Your task to perform on an android device: Open Amazon Image 0: 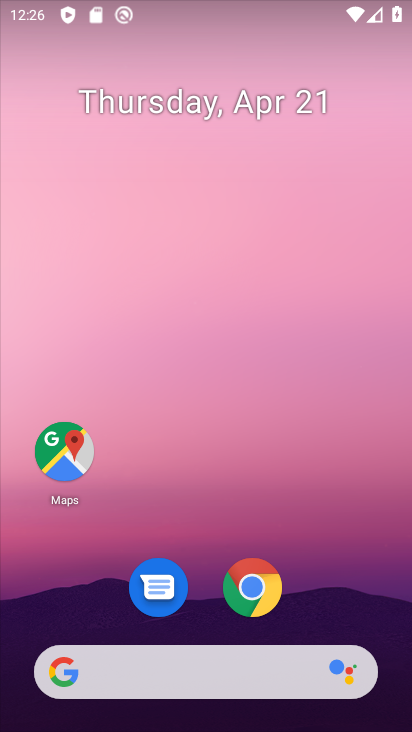
Step 0: click (254, 594)
Your task to perform on an android device: Open Amazon Image 1: 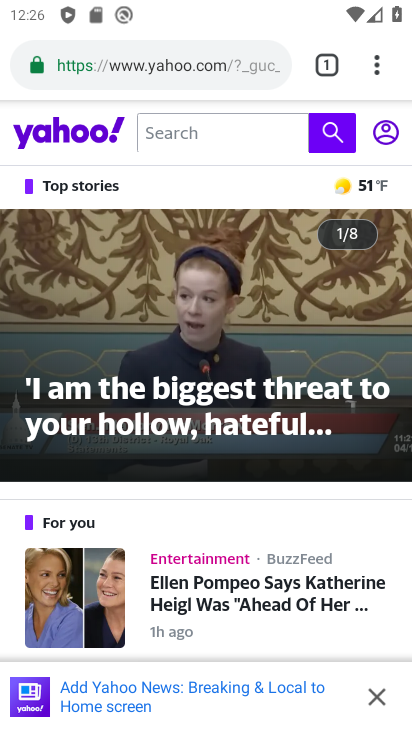
Step 1: click (369, 75)
Your task to perform on an android device: Open Amazon Image 2: 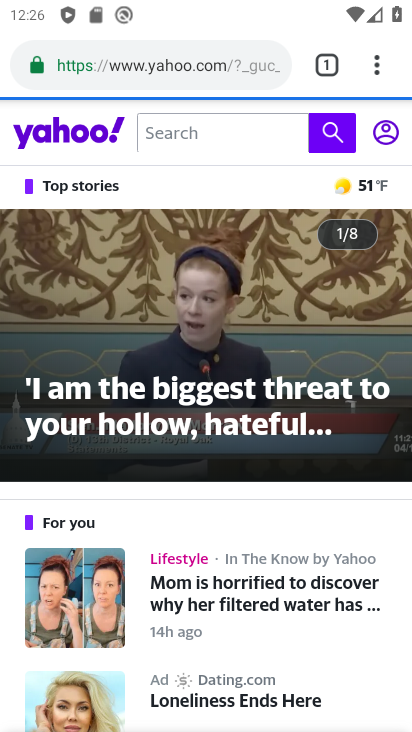
Step 2: click (377, 72)
Your task to perform on an android device: Open Amazon Image 3: 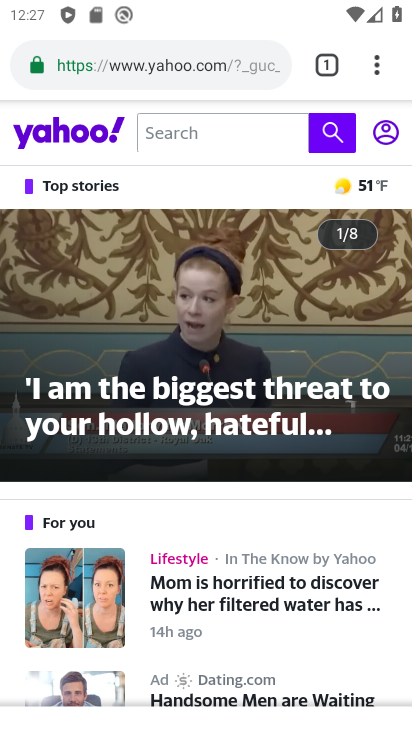
Step 3: click (377, 65)
Your task to perform on an android device: Open Amazon Image 4: 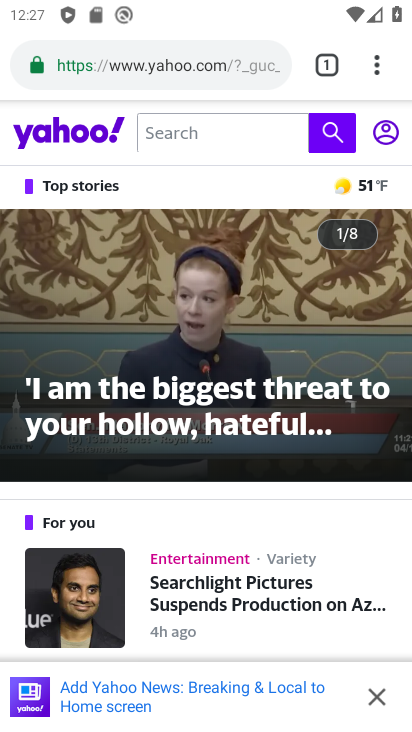
Step 4: click (376, 63)
Your task to perform on an android device: Open Amazon Image 5: 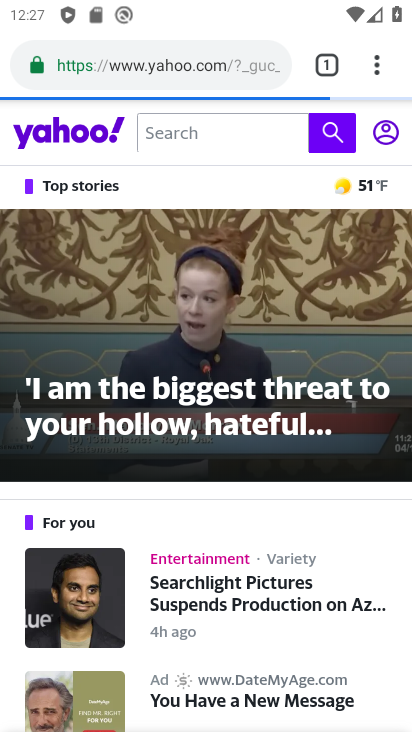
Step 5: click (370, 63)
Your task to perform on an android device: Open Amazon Image 6: 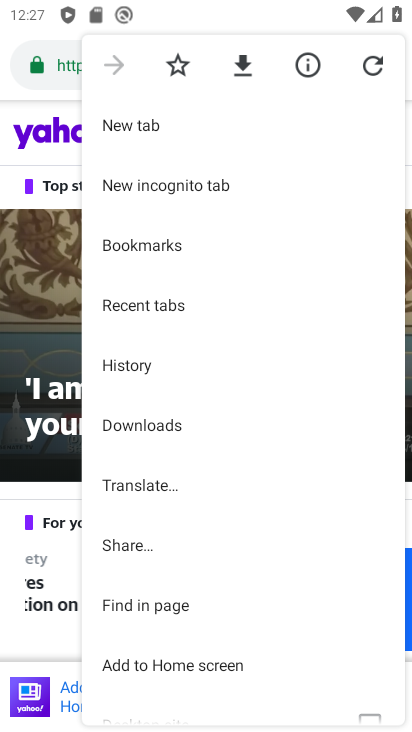
Step 6: click (126, 126)
Your task to perform on an android device: Open Amazon Image 7: 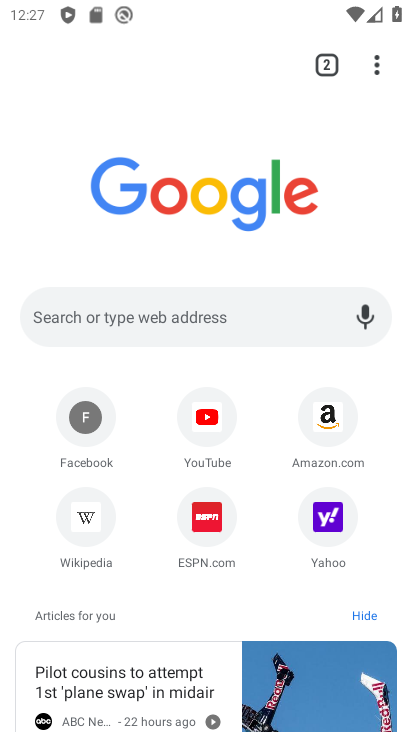
Step 7: click (324, 414)
Your task to perform on an android device: Open Amazon Image 8: 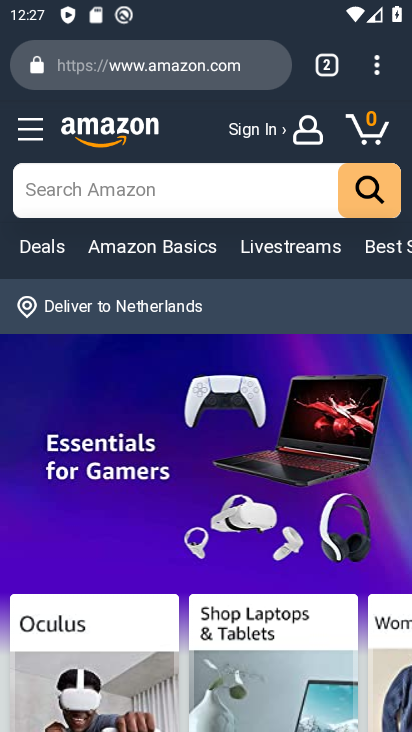
Step 8: task complete